Your task to perform on an android device: Open eBay Image 0: 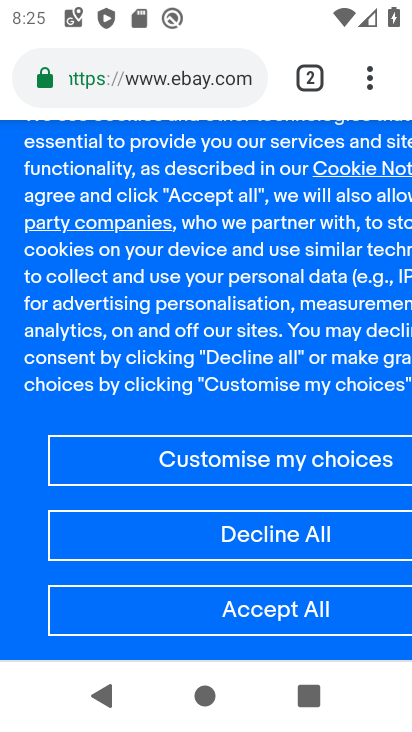
Step 0: press home button
Your task to perform on an android device: Open eBay Image 1: 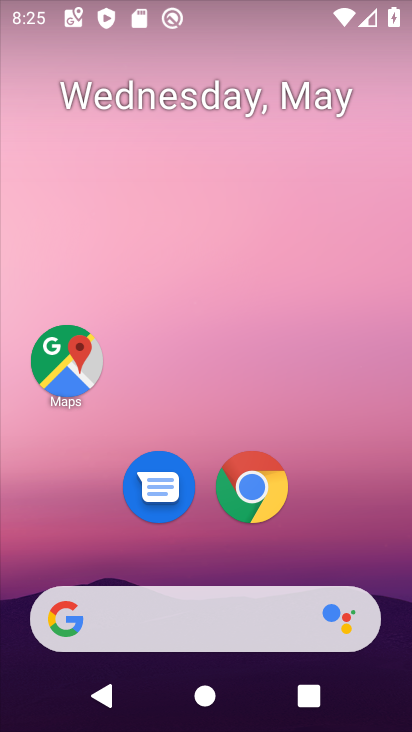
Step 1: click (253, 482)
Your task to perform on an android device: Open eBay Image 2: 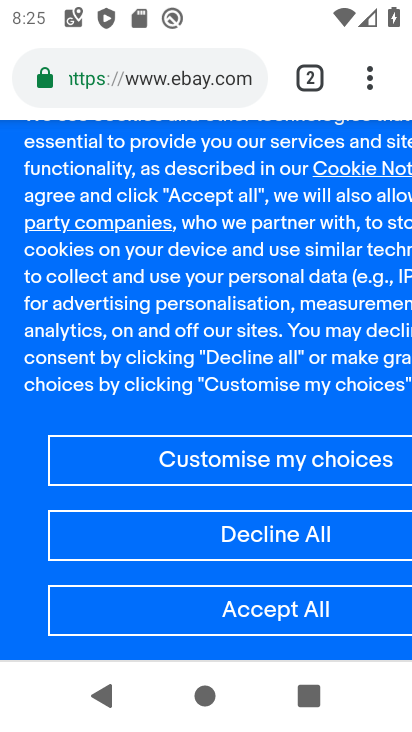
Step 2: click (253, 482)
Your task to perform on an android device: Open eBay Image 3: 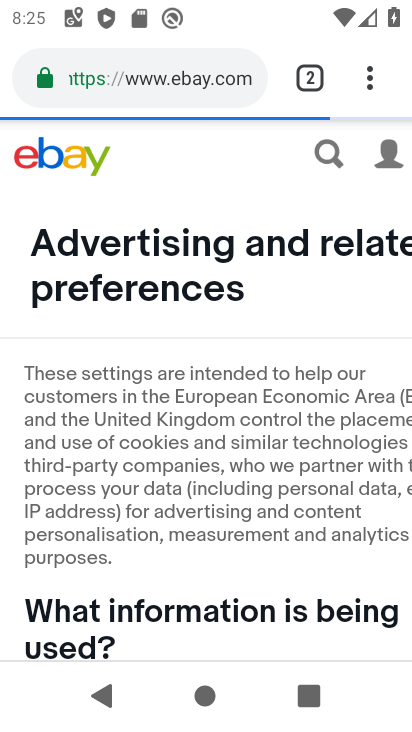
Step 3: click (375, 76)
Your task to perform on an android device: Open eBay Image 4: 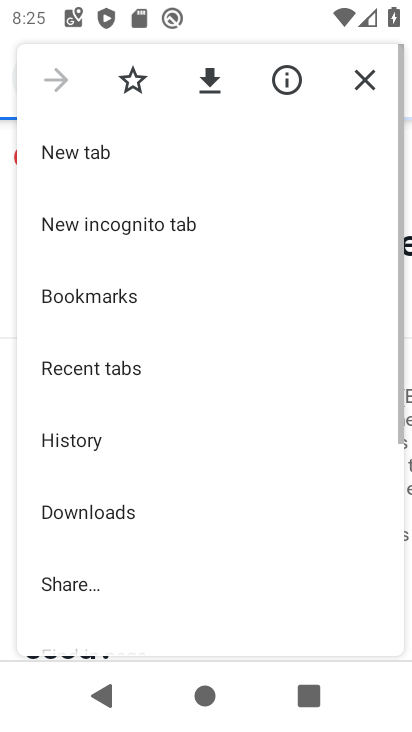
Step 4: click (368, 76)
Your task to perform on an android device: Open eBay Image 5: 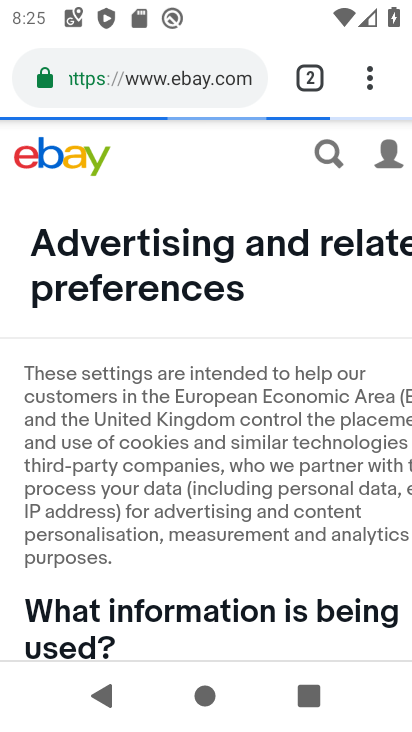
Step 5: click (368, 78)
Your task to perform on an android device: Open eBay Image 6: 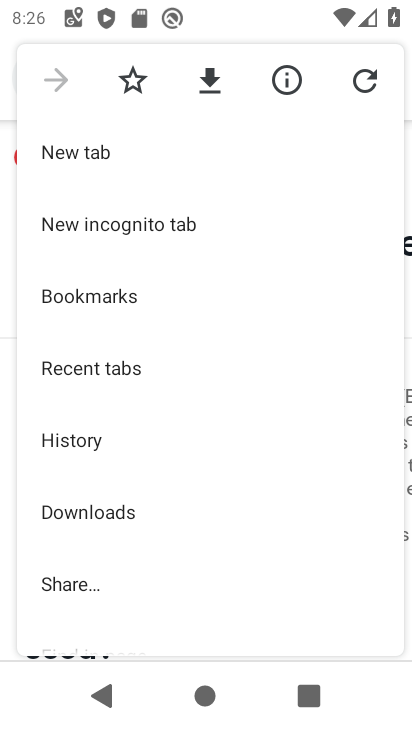
Step 6: click (66, 158)
Your task to perform on an android device: Open eBay Image 7: 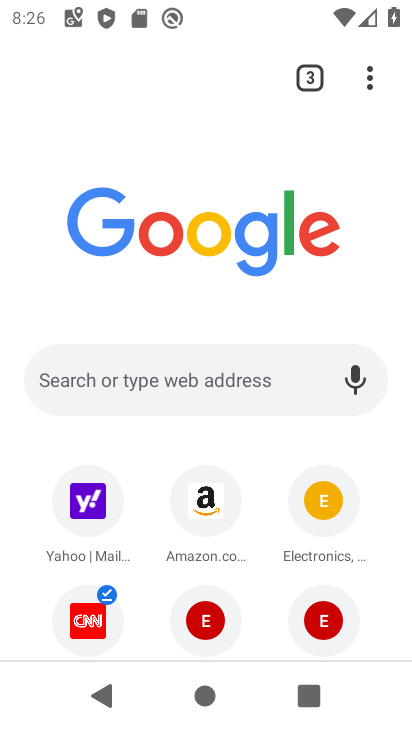
Step 7: click (168, 371)
Your task to perform on an android device: Open eBay Image 8: 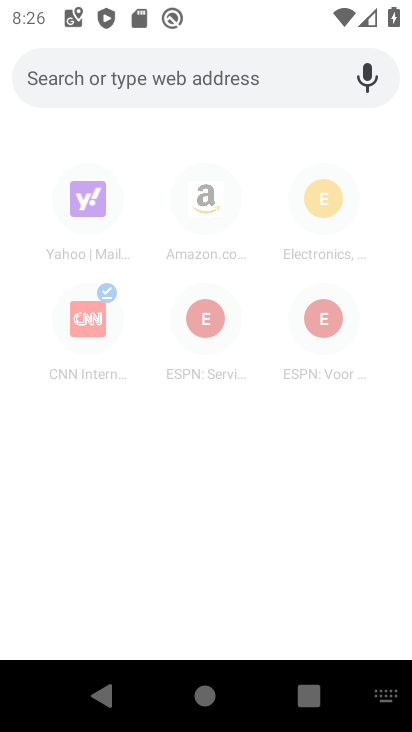
Step 8: type "ebay"
Your task to perform on an android device: Open eBay Image 9: 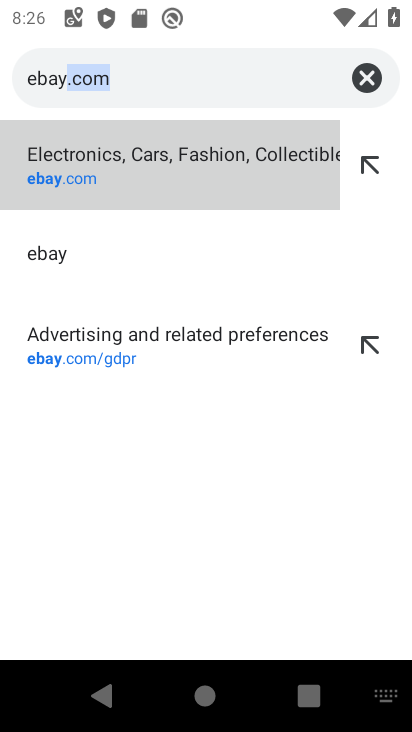
Step 9: click (53, 171)
Your task to perform on an android device: Open eBay Image 10: 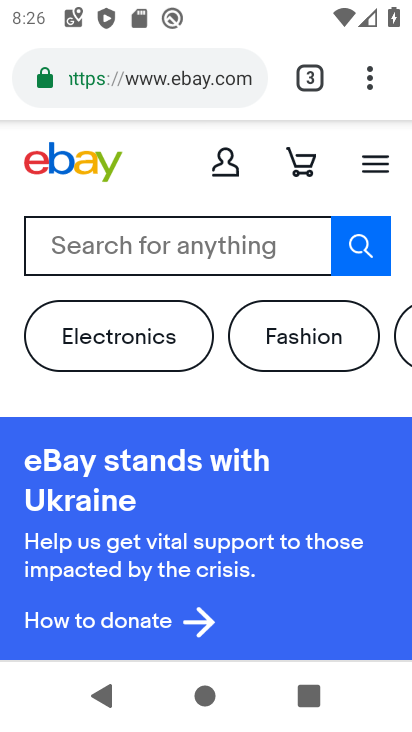
Step 10: task complete